Your task to perform on an android device: turn on improve location accuracy Image 0: 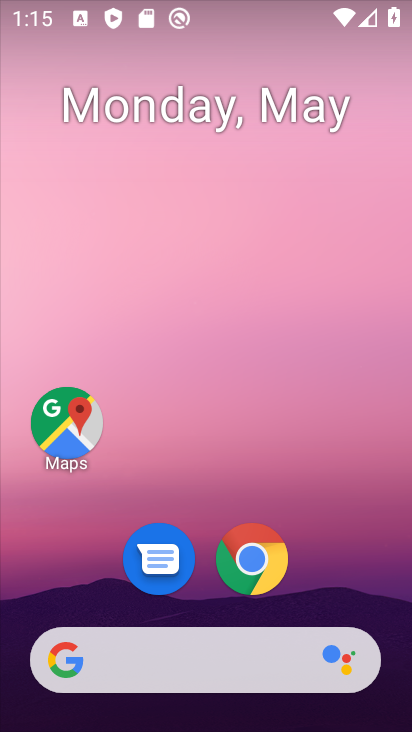
Step 0: drag from (357, 455) to (341, 11)
Your task to perform on an android device: turn on improve location accuracy Image 1: 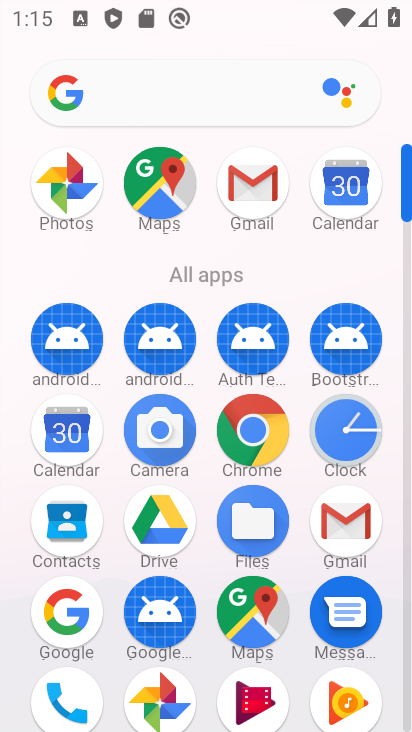
Step 1: drag from (393, 448) to (367, 0)
Your task to perform on an android device: turn on improve location accuracy Image 2: 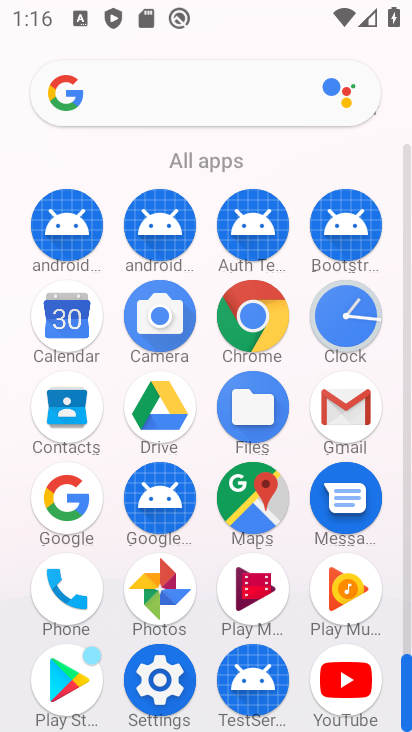
Step 2: click (168, 665)
Your task to perform on an android device: turn on improve location accuracy Image 3: 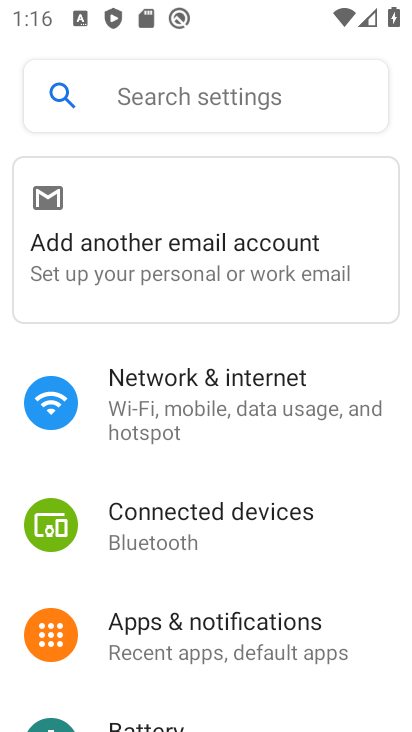
Step 3: drag from (261, 589) to (325, 250)
Your task to perform on an android device: turn on improve location accuracy Image 4: 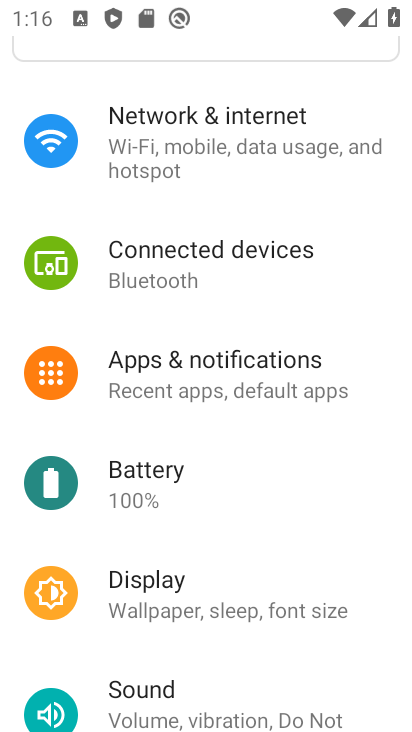
Step 4: drag from (215, 676) to (310, 232)
Your task to perform on an android device: turn on improve location accuracy Image 5: 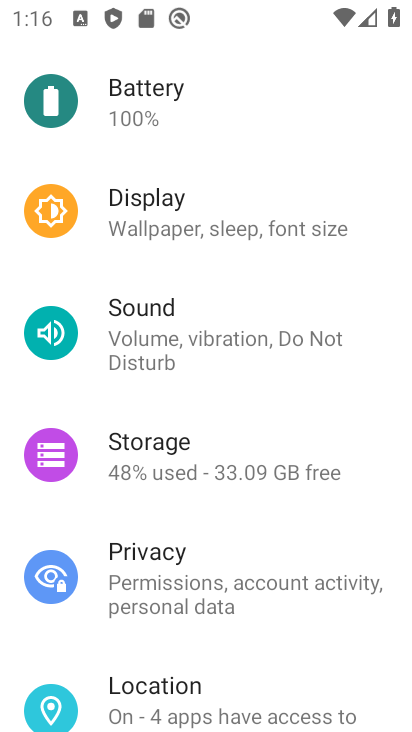
Step 5: drag from (142, 685) to (232, 379)
Your task to perform on an android device: turn on improve location accuracy Image 6: 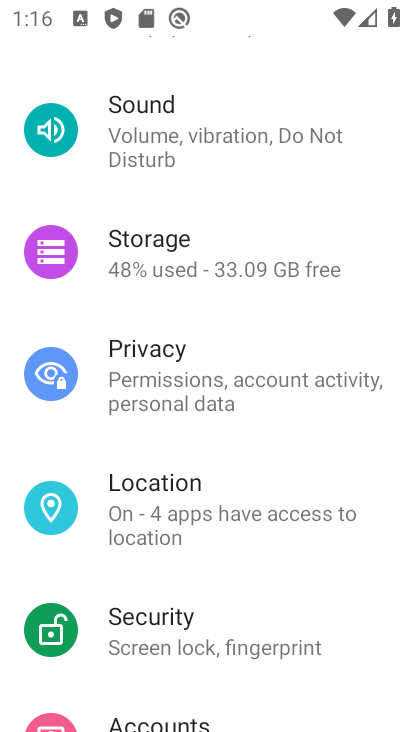
Step 6: click (143, 485)
Your task to perform on an android device: turn on improve location accuracy Image 7: 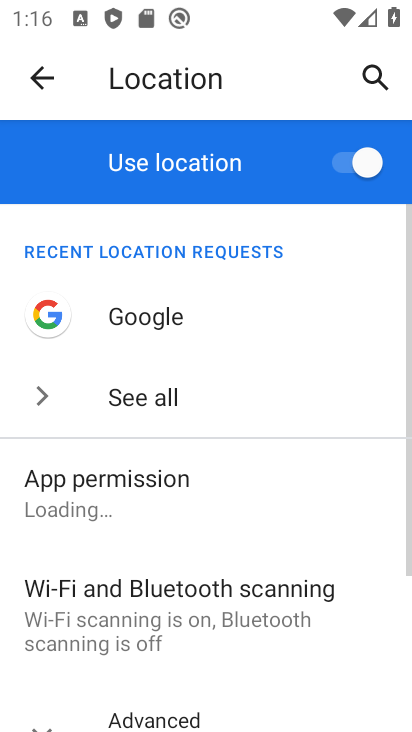
Step 7: drag from (166, 546) to (226, 309)
Your task to perform on an android device: turn on improve location accuracy Image 8: 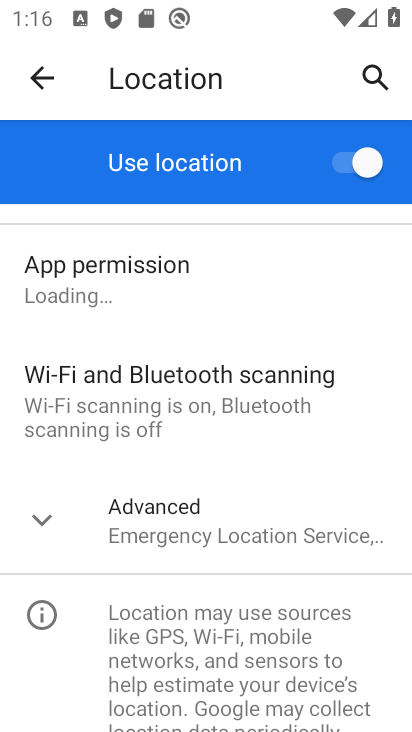
Step 8: click (162, 527)
Your task to perform on an android device: turn on improve location accuracy Image 9: 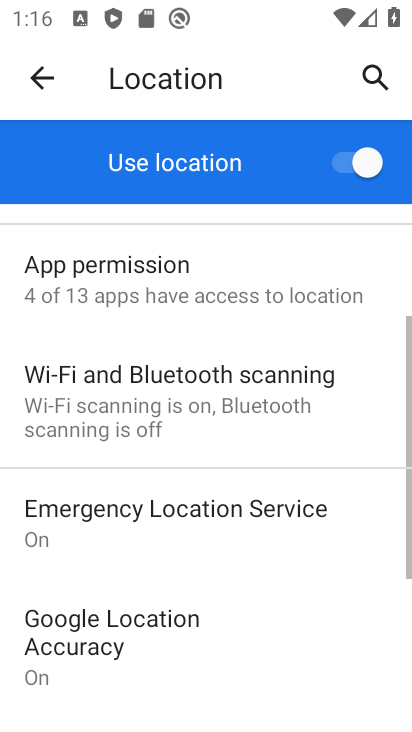
Step 9: drag from (185, 577) to (267, 244)
Your task to perform on an android device: turn on improve location accuracy Image 10: 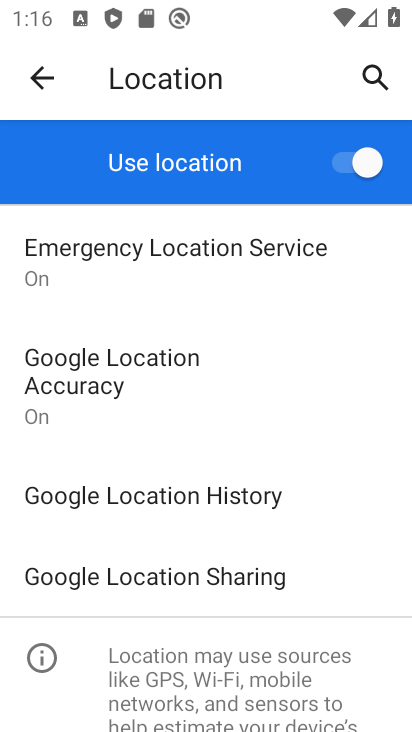
Step 10: click (147, 365)
Your task to perform on an android device: turn on improve location accuracy Image 11: 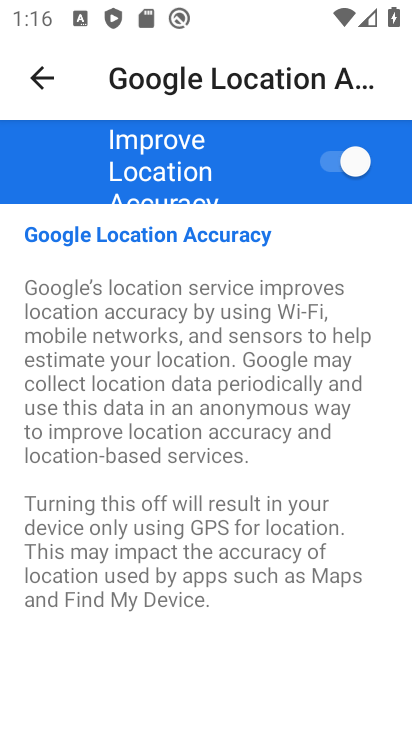
Step 11: task complete